Your task to perform on an android device: turn off airplane mode Image 0: 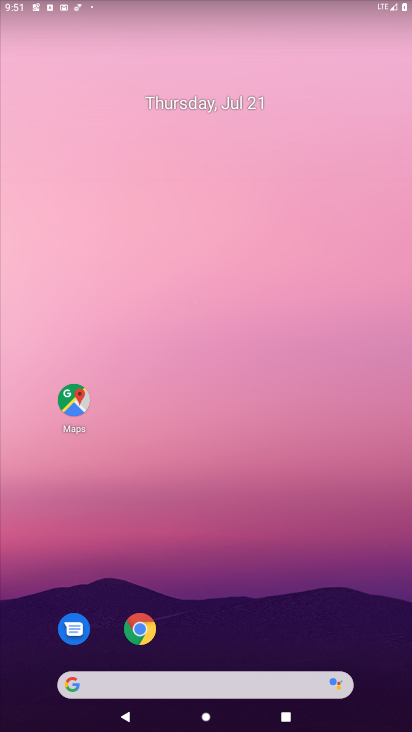
Step 0: drag from (218, 620) to (216, 105)
Your task to perform on an android device: turn off airplane mode Image 1: 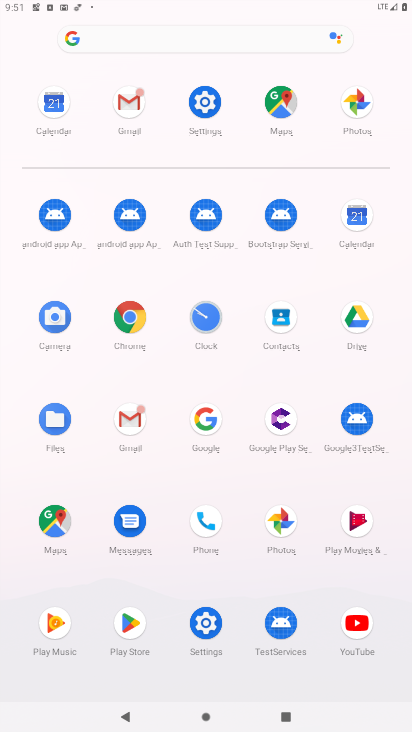
Step 1: click (209, 631)
Your task to perform on an android device: turn off airplane mode Image 2: 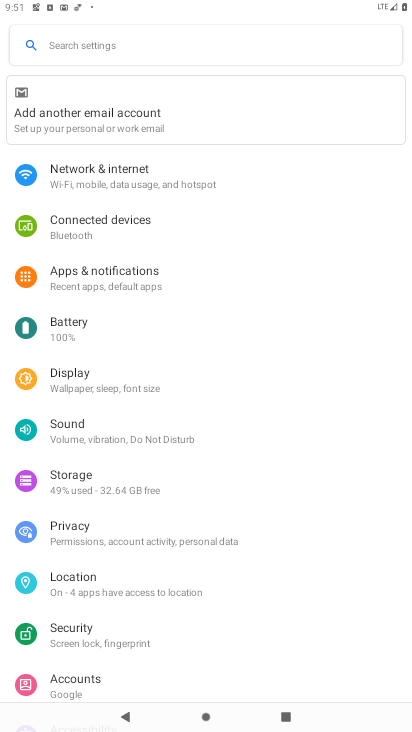
Step 2: click (127, 168)
Your task to perform on an android device: turn off airplane mode Image 3: 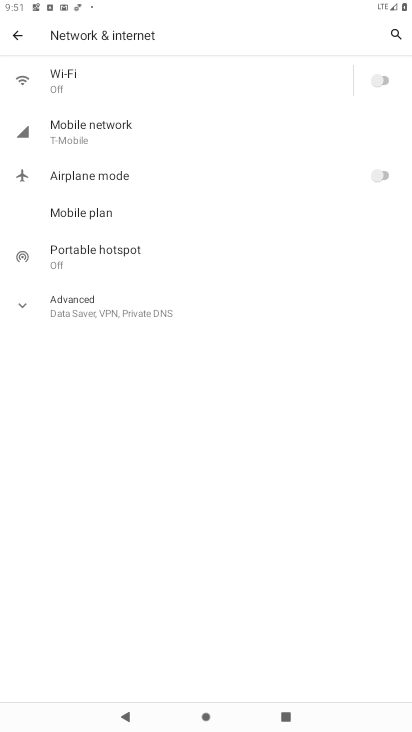
Step 3: click (142, 175)
Your task to perform on an android device: turn off airplane mode Image 4: 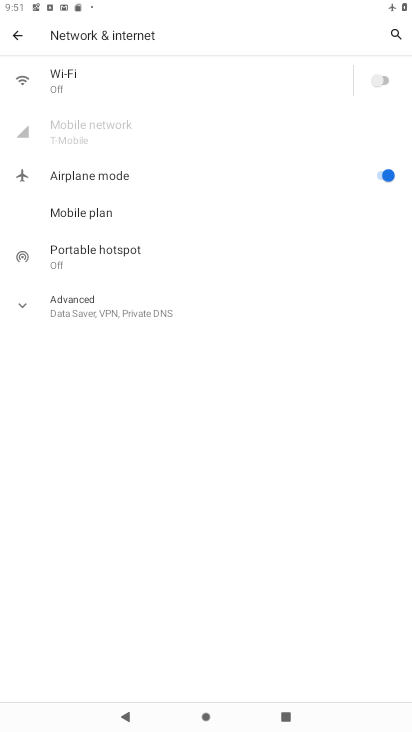
Step 4: click (142, 175)
Your task to perform on an android device: turn off airplane mode Image 5: 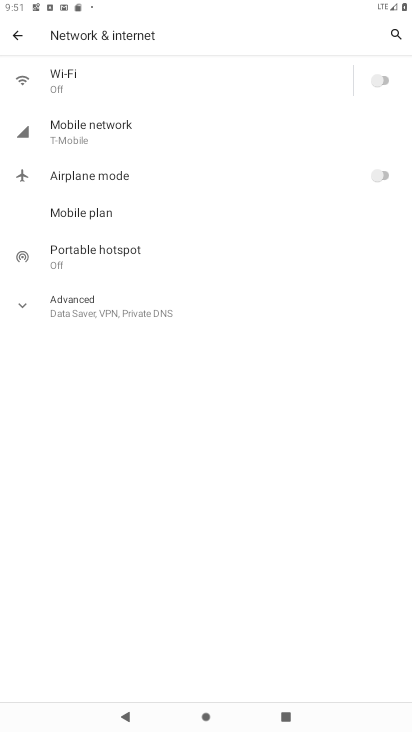
Step 5: task complete